Your task to perform on an android device: turn on sleep mode Image 0: 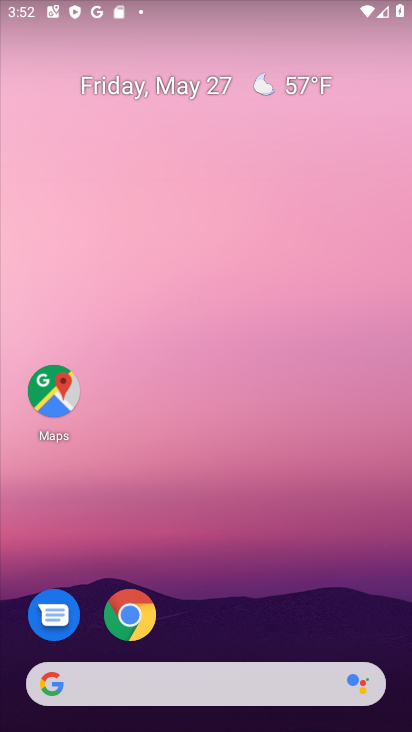
Step 0: drag from (192, 581) to (163, 1)
Your task to perform on an android device: turn on sleep mode Image 1: 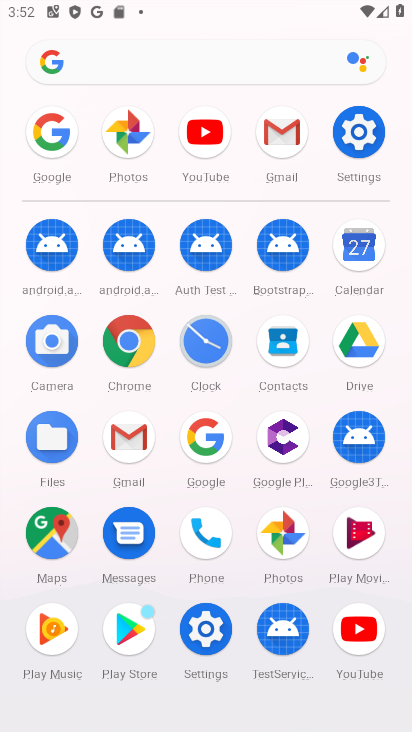
Step 1: click (215, 639)
Your task to perform on an android device: turn on sleep mode Image 2: 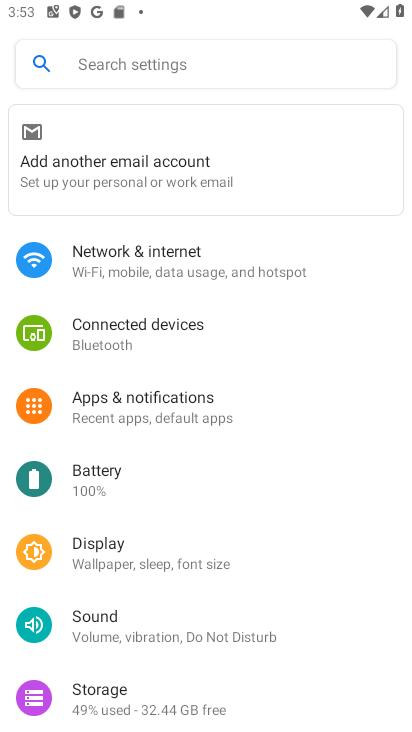
Step 2: task complete